Your task to perform on an android device: open app "Spotify: Music and Podcasts" Image 0: 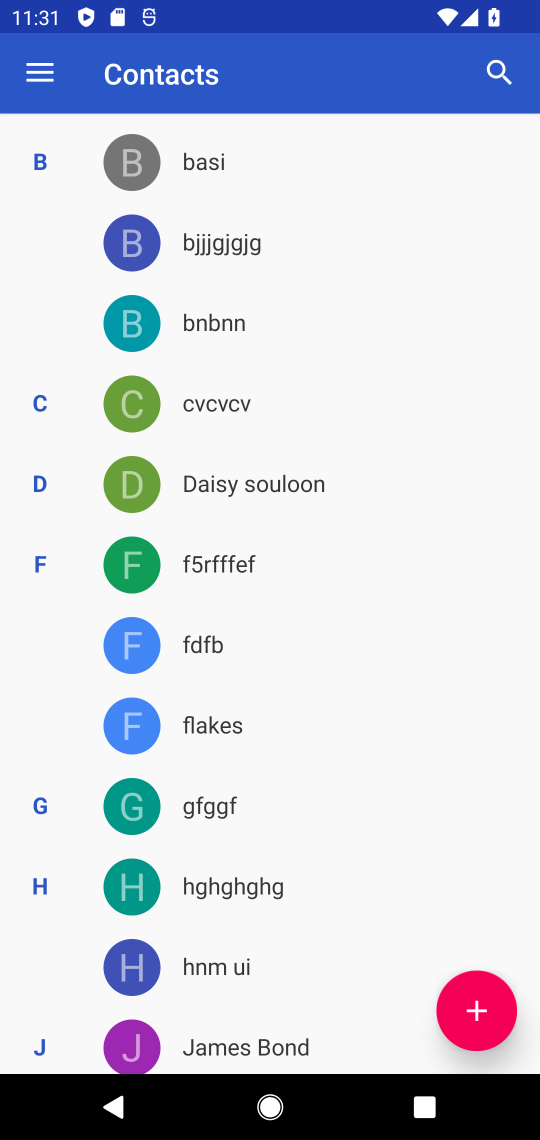
Step 0: press home button
Your task to perform on an android device: open app "Spotify: Music and Podcasts" Image 1: 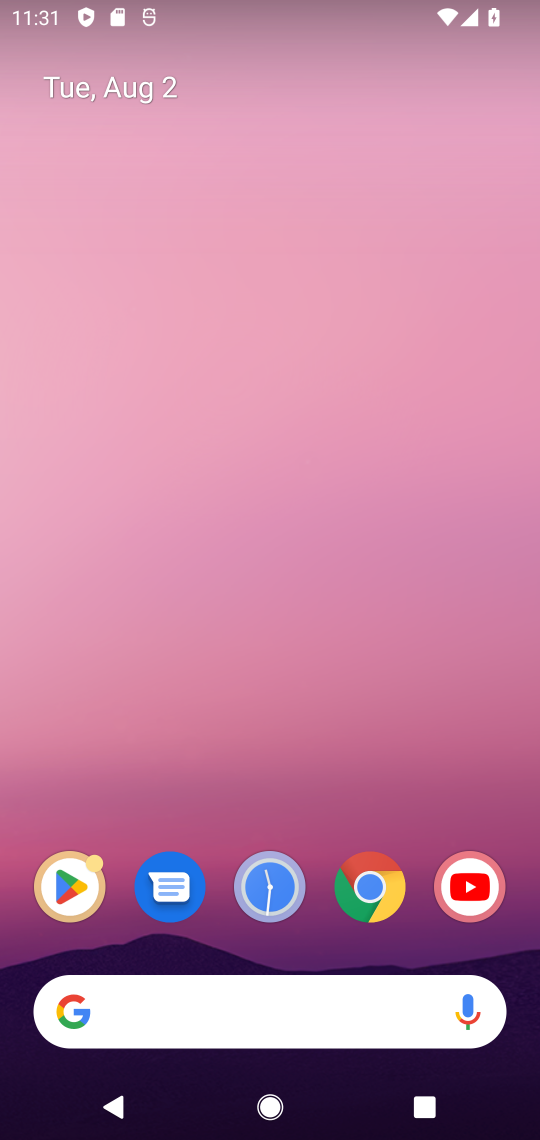
Step 1: click (93, 863)
Your task to perform on an android device: open app "Spotify: Music and Podcasts" Image 2: 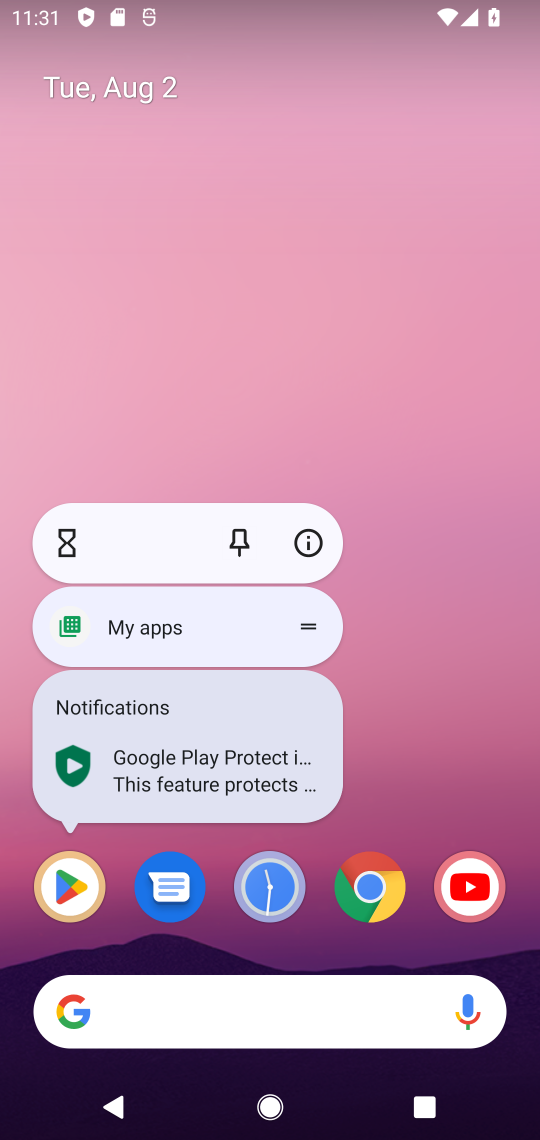
Step 2: click (57, 891)
Your task to perform on an android device: open app "Spotify: Music and Podcasts" Image 3: 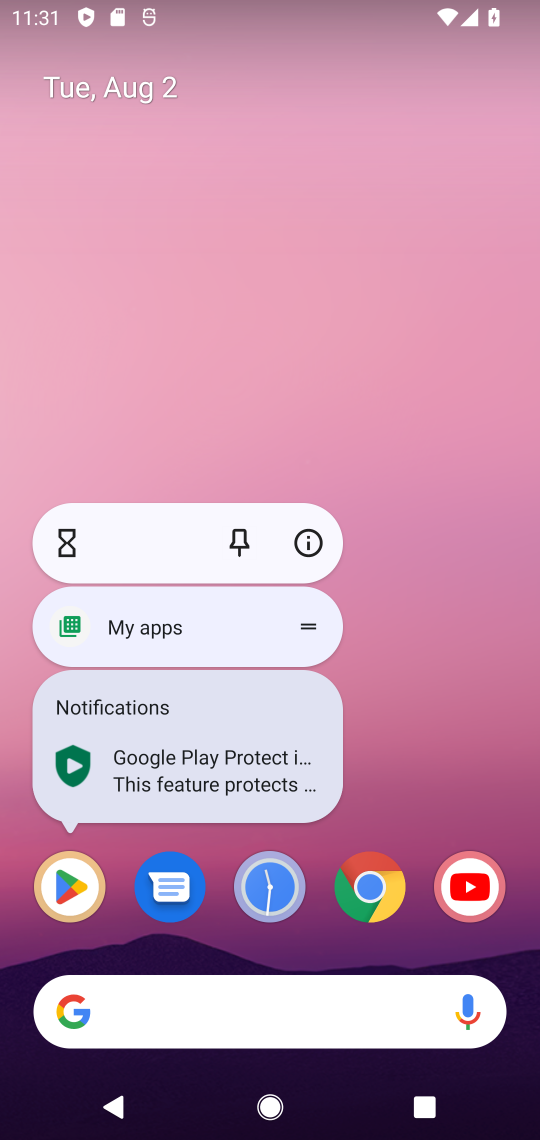
Step 3: click (59, 933)
Your task to perform on an android device: open app "Spotify: Music and Podcasts" Image 4: 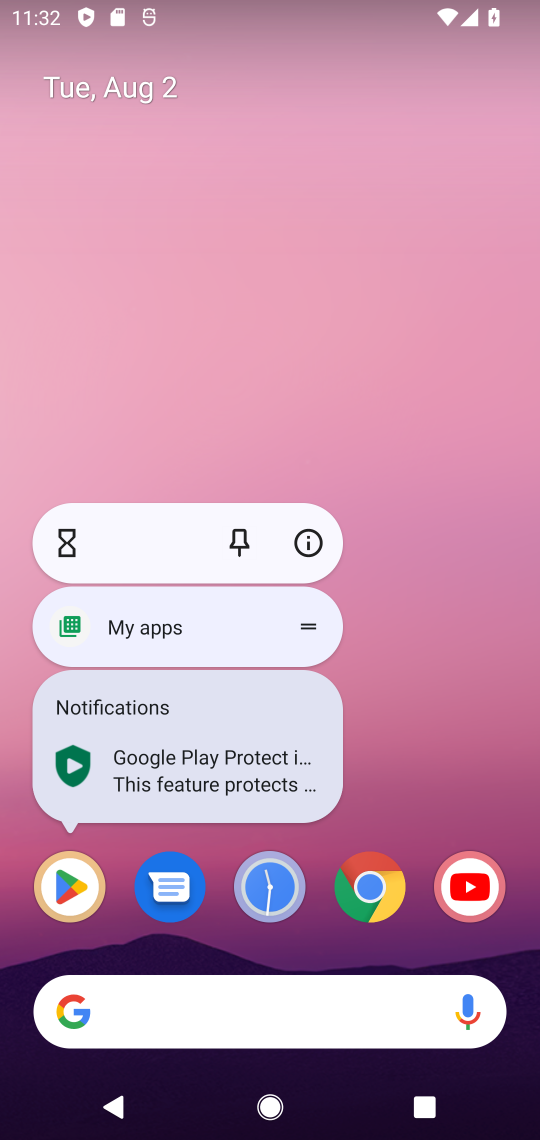
Step 4: click (77, 920)
Your task to perform on an android device: open app "Spotify: Music and Podcasts" Image 5: 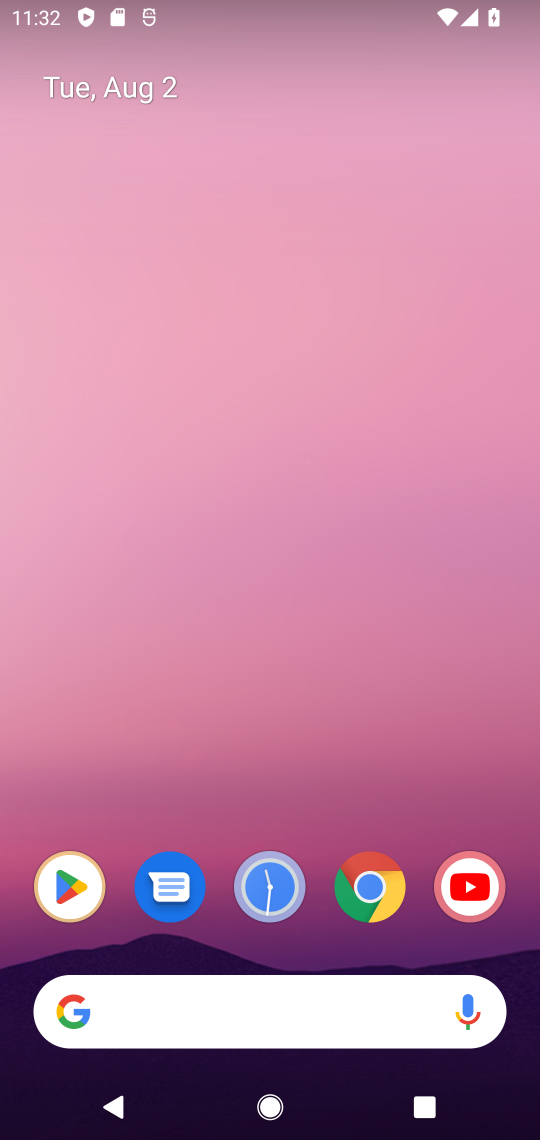
Step 5: click (46, 884)
Your task to perform on an android device: open app "Spotify: Music and Podcasts" Image 6: 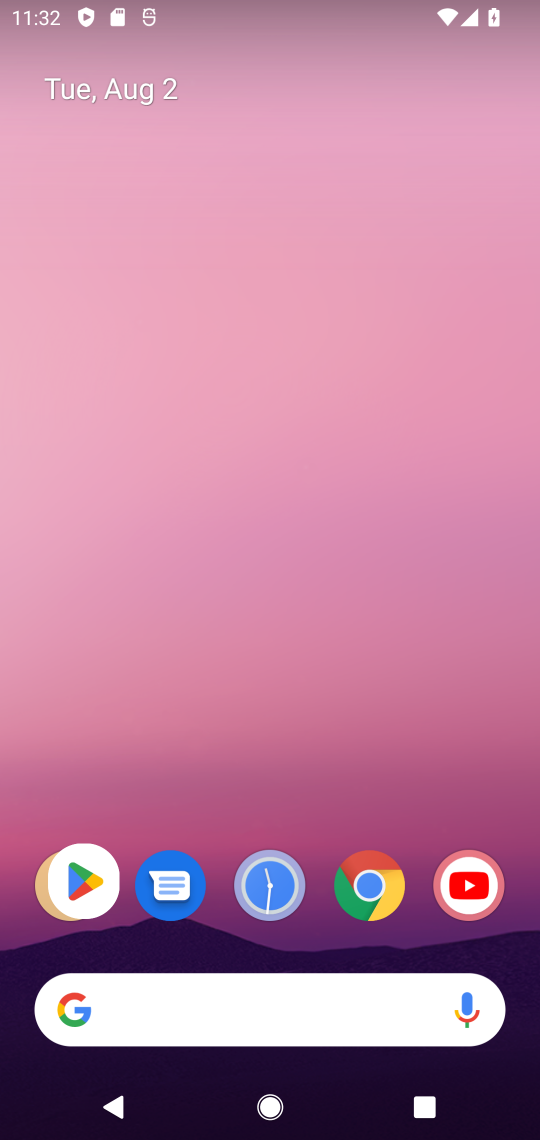
Step 6: click (41, 928)
Your task to perform on an android device: open app "Spotify: Music and Podcasts" Image 7: 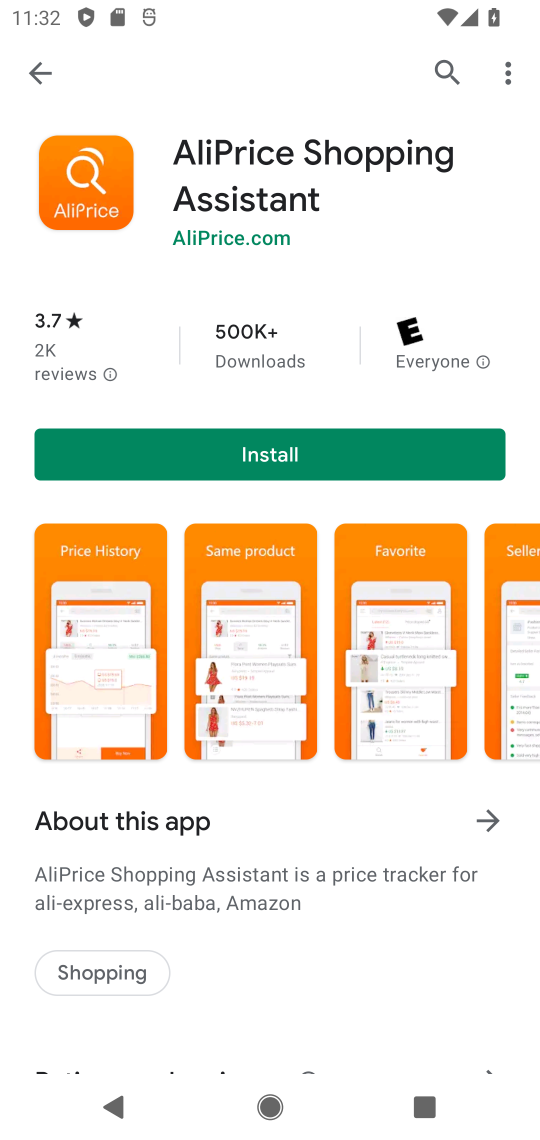
Step 7: click (439, 66)
Your task to perform on an android device: open app "Spotify: Music and Podcasts" Image 8: 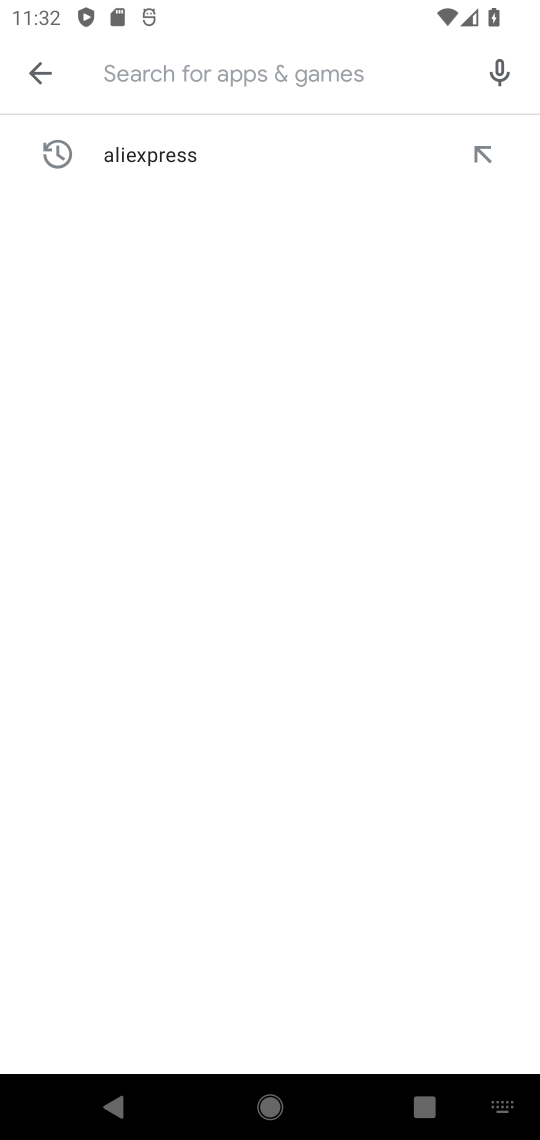
Step 8: click (307, 69)
Your task to perform on an android device: open app "Spotify: Music and Podcasts" Image 9: 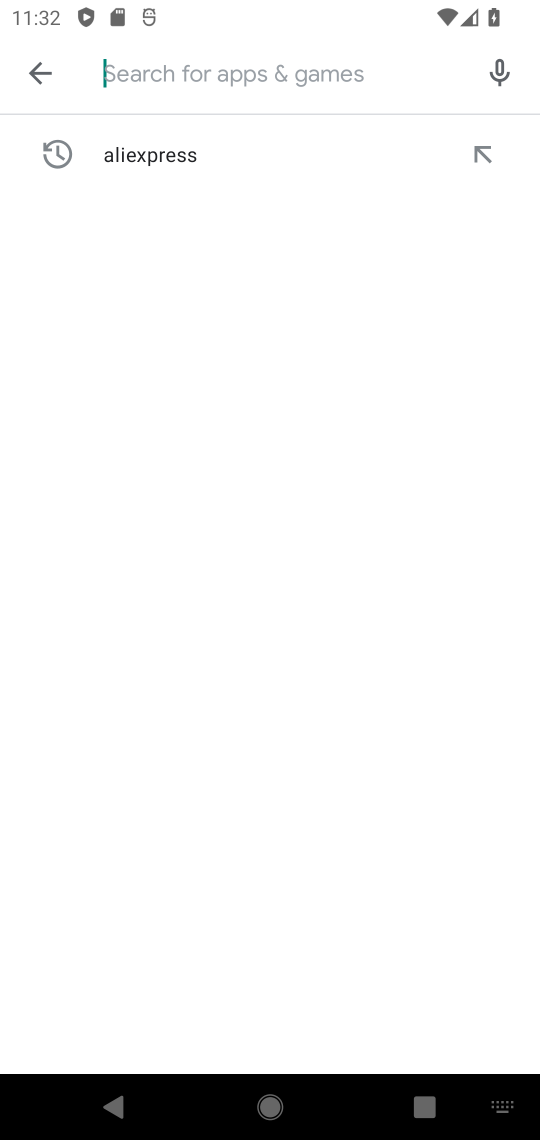
Step 9: type "Spotify"
Your task to perform on an android device: open app "Spotify: Music and Podcasts" Image 10: 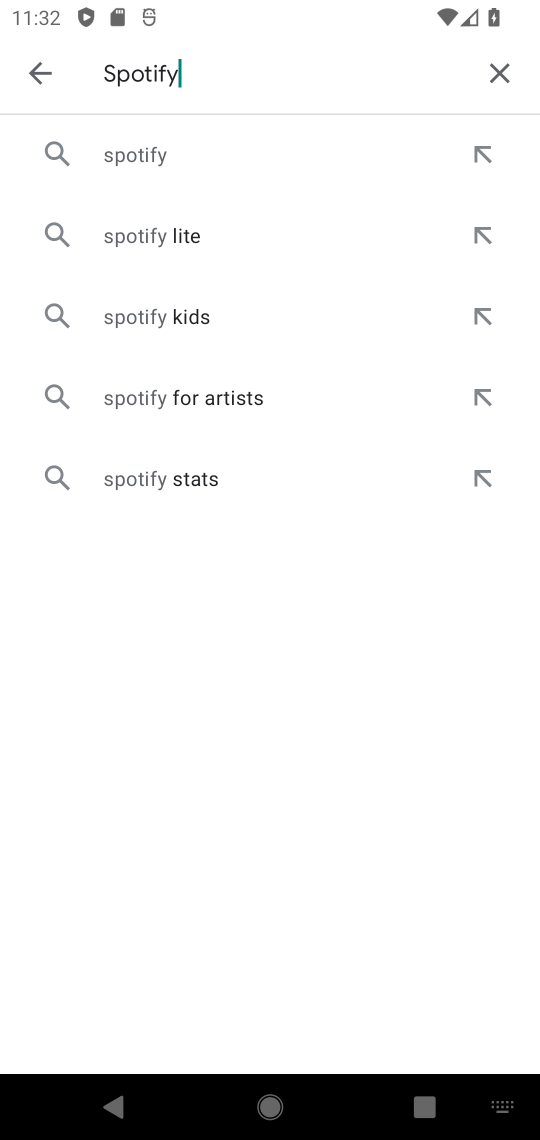
Step 10: click (178, 170)
Your task to perform on an android device: open app "Spotify: Music and Podcasts" Image 11: 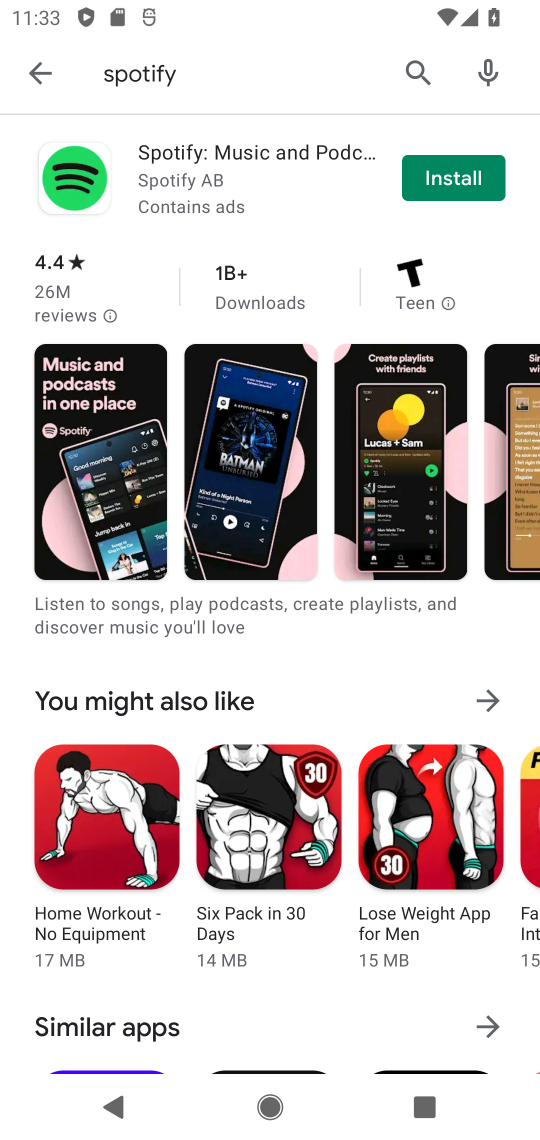
Step 11: task complete